Your task to perform on an android device: change text size in settings app Image 0: 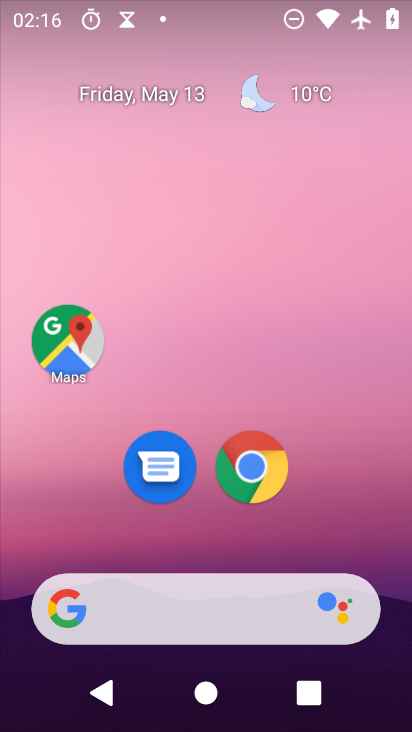
Step 0: drag from (342, 537) to (242, 72)
Your task to perform on an android device: change text size in settings app Image 1: 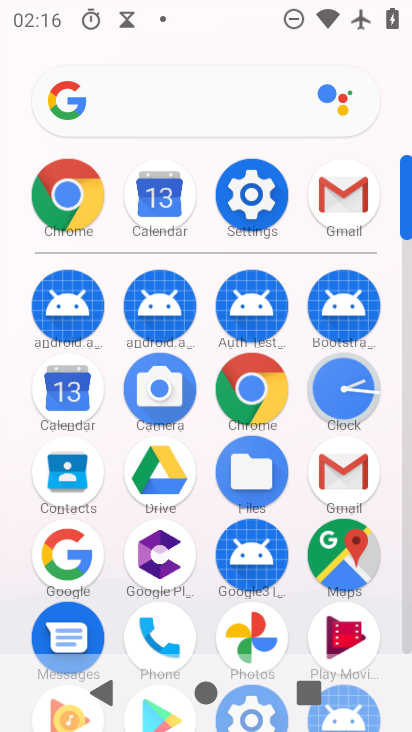
Step 1: click (259, 228)
Your task to perform on an android device: change text size in settings app Image 2: 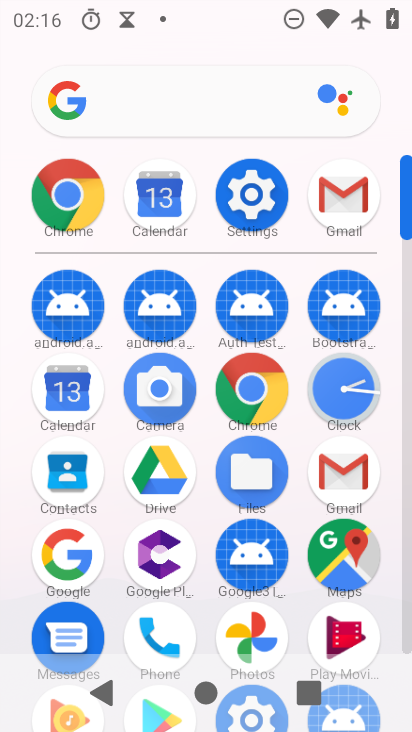
Step 2: click (255, 198)
Your task to perform on an android device: change text size in settings app Image 3: 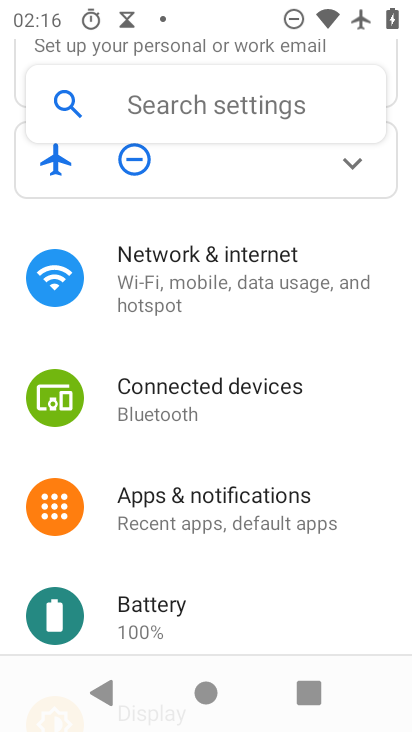
Step 3: drag from (223, 611) to (224, 339)
Your task to perform on an android device: change text size in settings app Image 4: 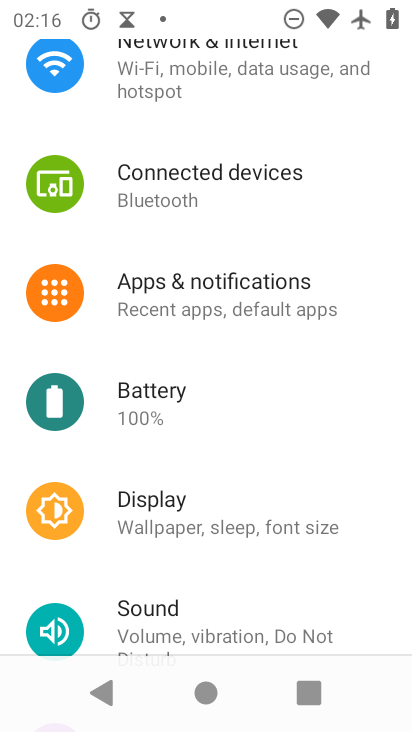
Step 4: click (216, 513)
Your task to perform on an android device: change text size in settings app Image 5: 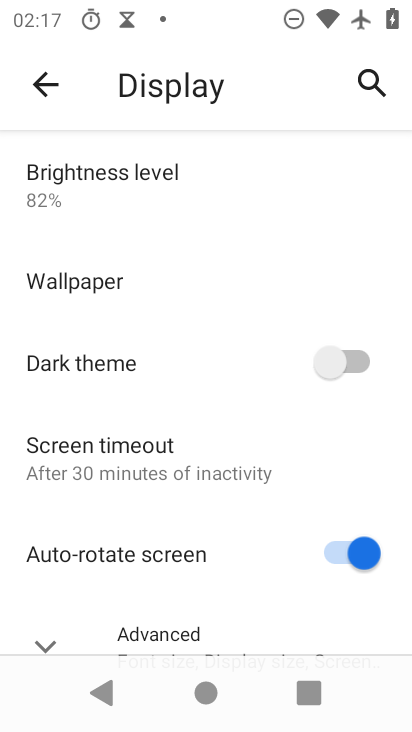
Step 5: click (171, 627)
Your task to perform on an android device: change text size in settings app Image 6: 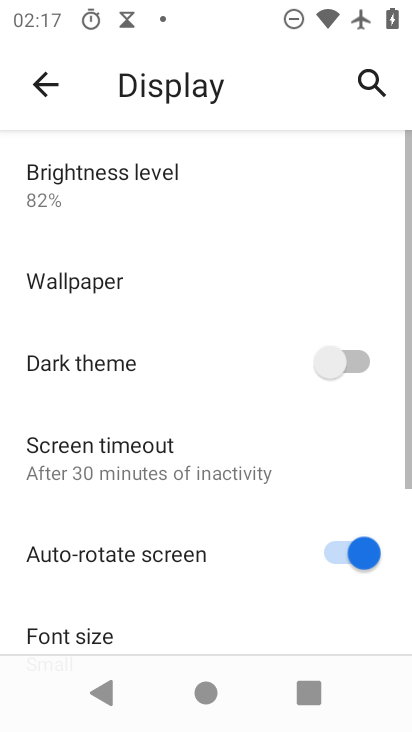
Step 6: drag from (168, 601) to (185, 411)
Your task to perform on an android device: change text size in settings app Image 7: 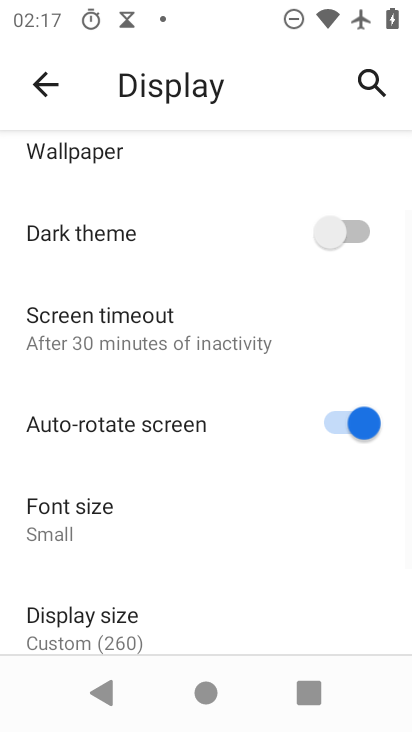
Step 7: click (146, 527)
Your task to perform on an android device: change text size in settings app Image 8: 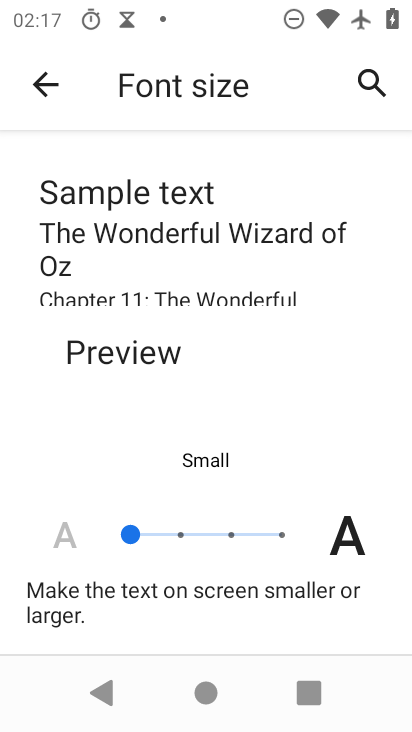
Step 8: click (182, 535)
Your task to perform on an android device: change text size in settings app Image 9: 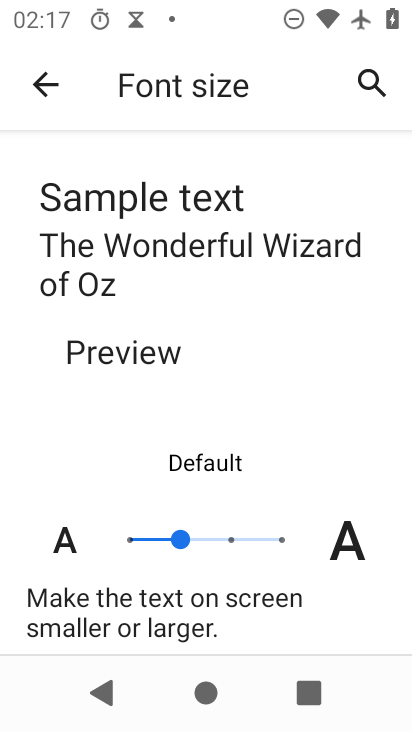
Step 9: task complete